Your task to perform on an android device: move a message to another label in the gmail app Image 0: 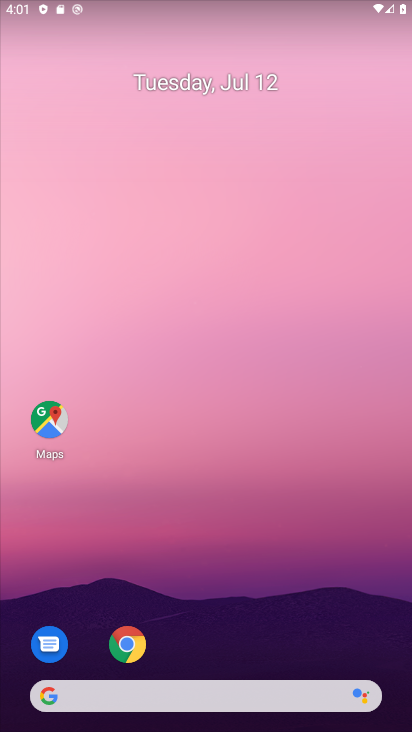
Step 0: drag from (220, 681) to (153, 100)
Your task to perform on an android device: move a message to another label in the gmail app Image 1: 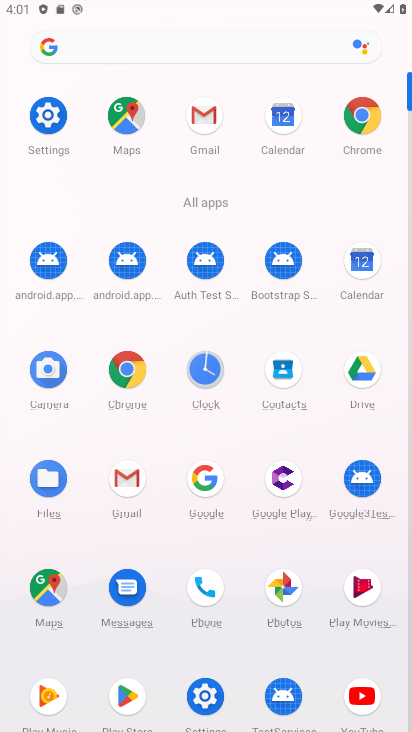
Step 1: click (134, 476)
Your task to perform on an android device: move a message to another label in the gmail app Image 2: 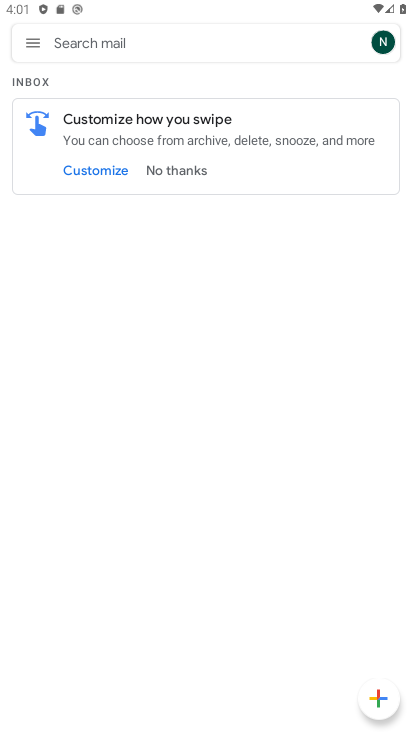
Step 2: click (154, 185)
Your task to perform on an android device: move a message to another label in the gmail app Image 3: 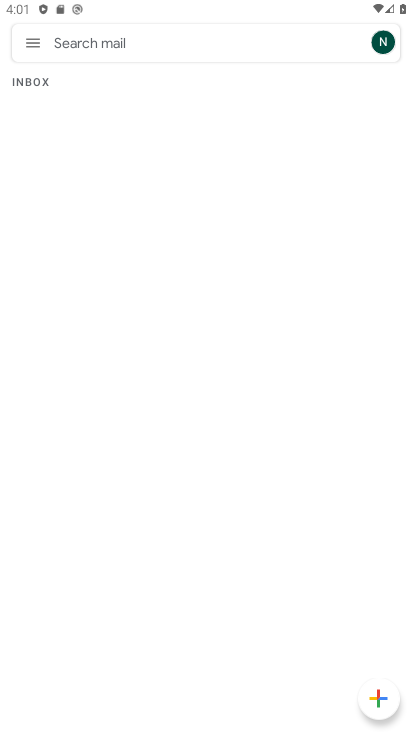
Step 3: click (32, 53)
Your task to perform on an android device: move a message to another label in the gmail app Image 4: 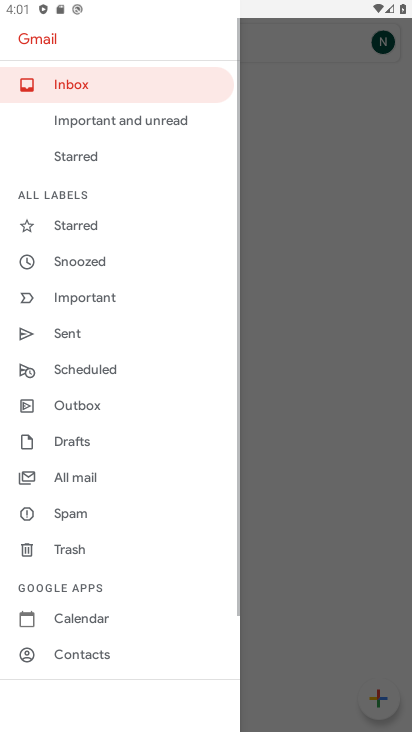
Step 4: click (102, 477)
Your task to perform on an android device: move a message to another label in the gmail app Image 5: 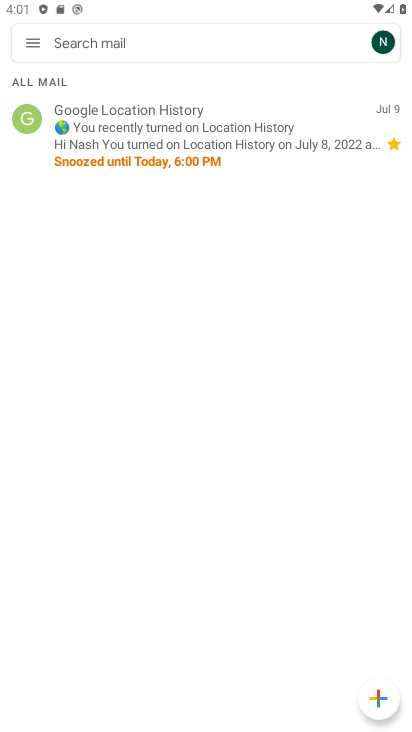
Step 5: click (31, 114)
Your task to perform on an android device: move a message to another label in the gmail app Image 6: 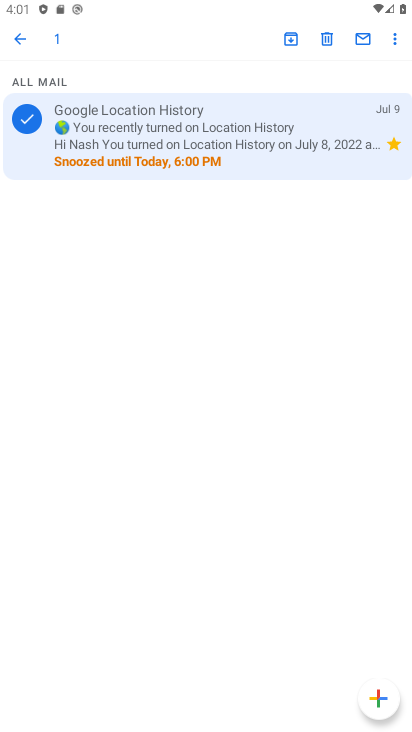
Step 6: click (392, 40)
Your task to perform on an android device: move a message to another label in the gmail app Image 7: 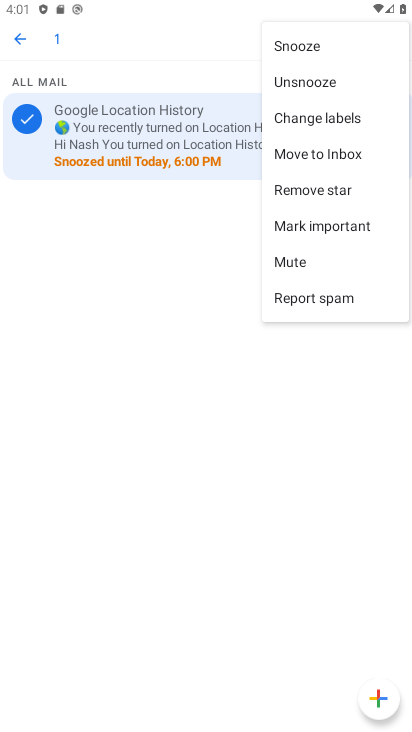
Step 7: click (312, 112)
Your task to perform on an android device: move a message to another label in the gmail app Image 8: 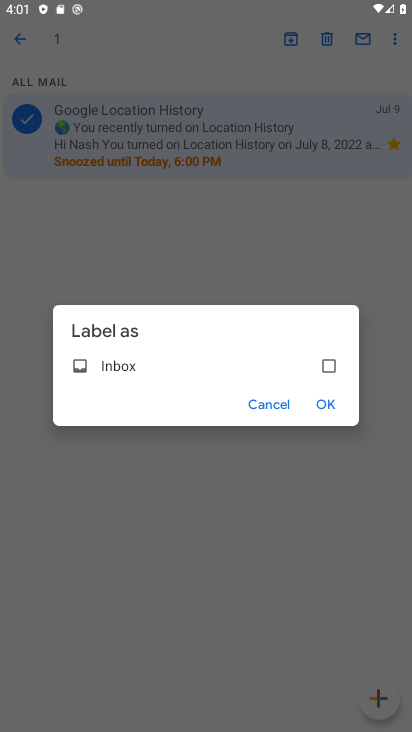
Step 8: click (322, 369)
Your task to perform on an android device: move a message to another label in the gmail app Image 9: 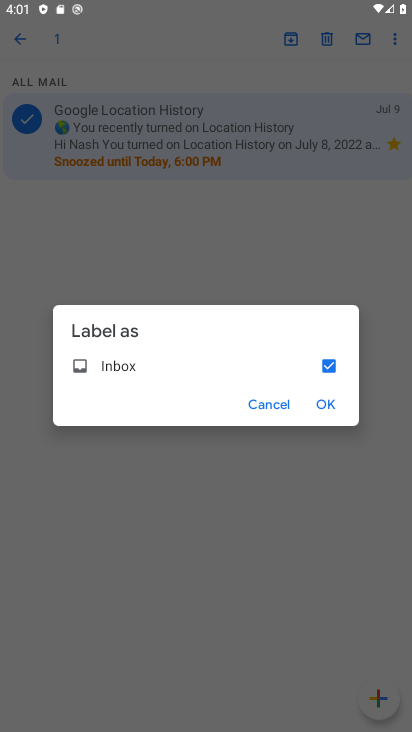
Step 9: click (325, 404)
Your task to perform on an android device: move a message to another label in the gmail app Image 10: 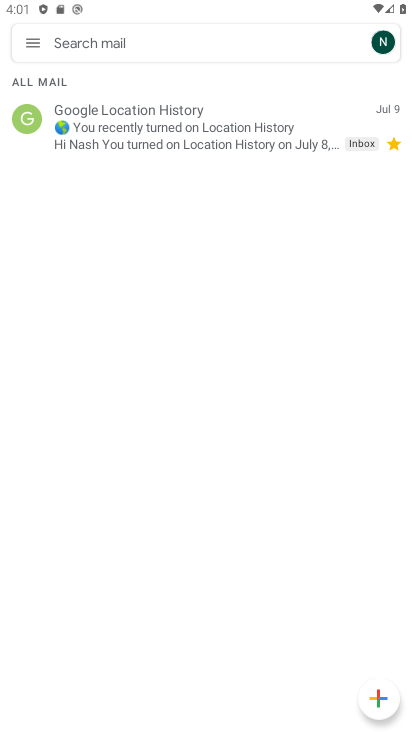
Step 10: task complete